Your task to perform on an android device: change alarm snooze length Image 0: 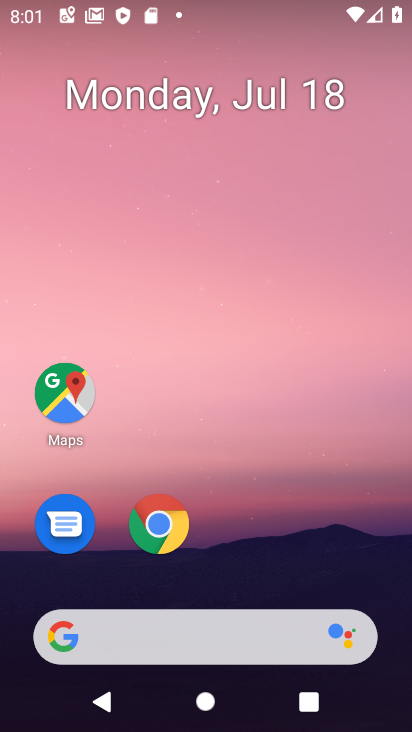
Step 0: drag from (263, 537) to (288, 0)
Your task to perform on an android device: change alarm snooze length Image 1: 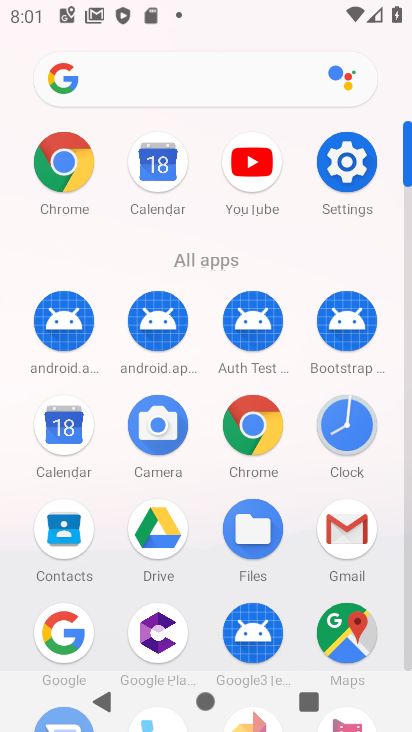
Step 1: click (344, 414)
Your task to perform on an android device: change alarm snooze length Image 2: 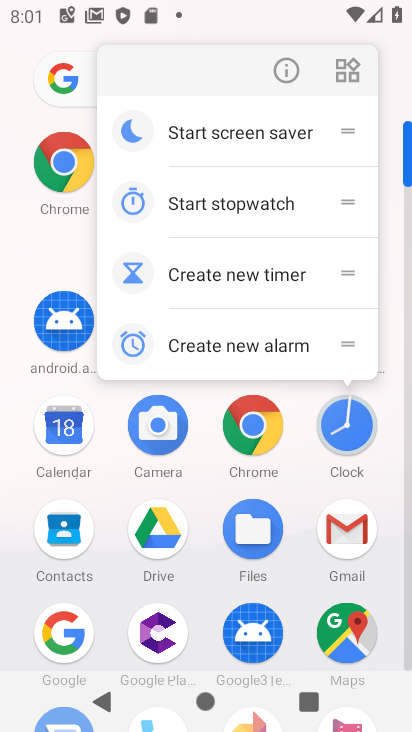
Step 2: click (345, 429)
Your task to perform on an android device: change alarm snooze length Image 3: 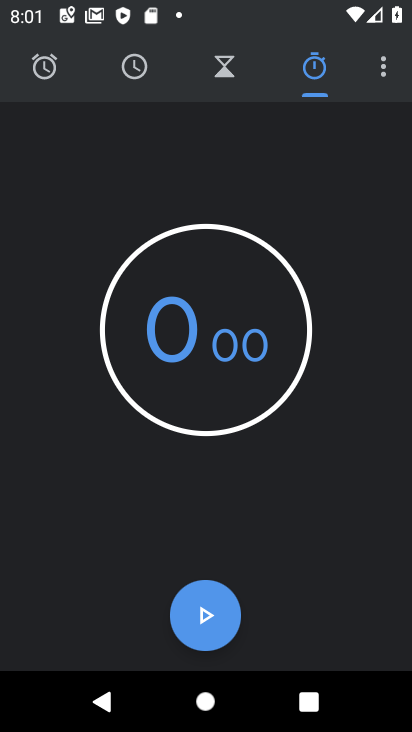
Step 3: click (381, 70)
Your task to perform on an android device: change alarm snooze length Image 4: 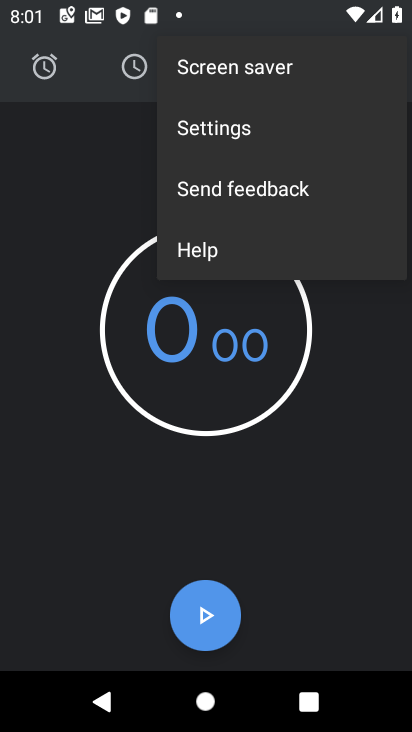
Step 4: click (262, 131)
Your task to perform on an android device: change alarm snooze length Image 5: 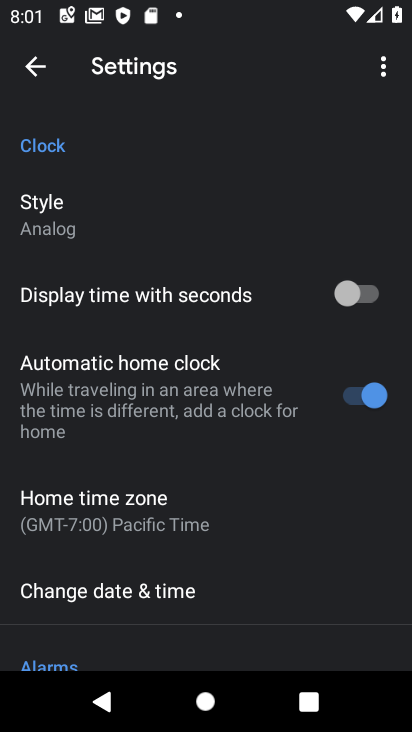
Step 5: drag from (210, 496) to (255, 59)
Your task to perform on an android device: change alarm snooze length Image 6: 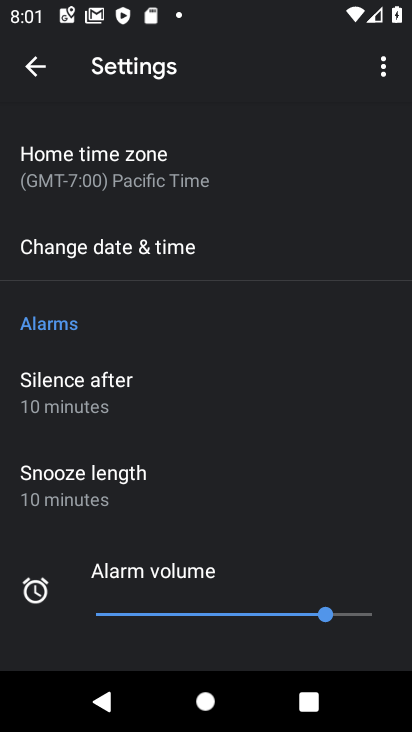
Step 6: click (119, 475)
Your task to perform on an android device: change alarm snooze length Image 7: 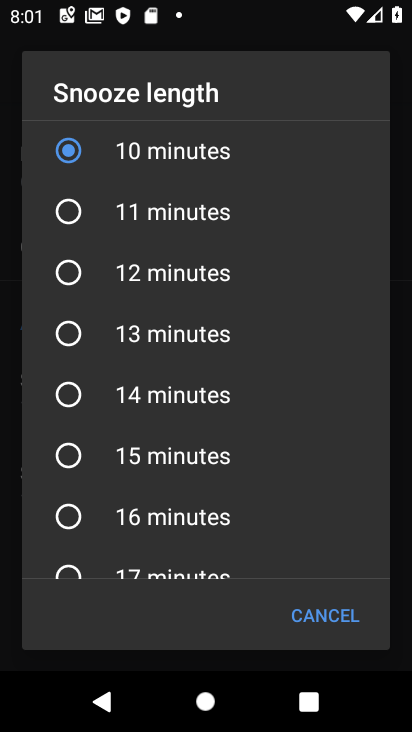
Step 7: click (72, 283)
Your task to perform on an android device: change alarm snooze length Image 8: 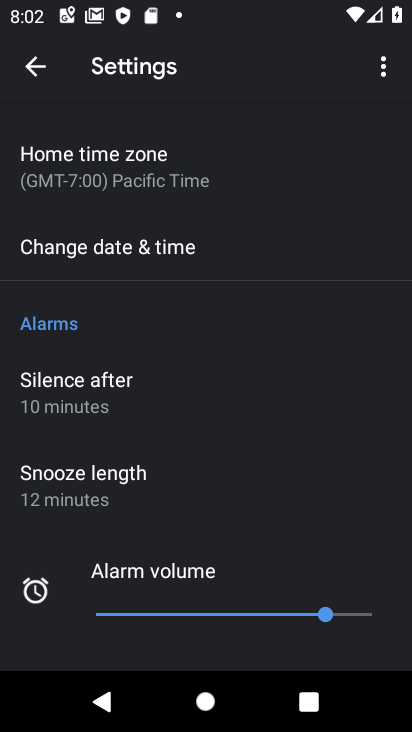
Step 8: task complete